Your task to perform on an android device: When is my next appointment? Image 0: 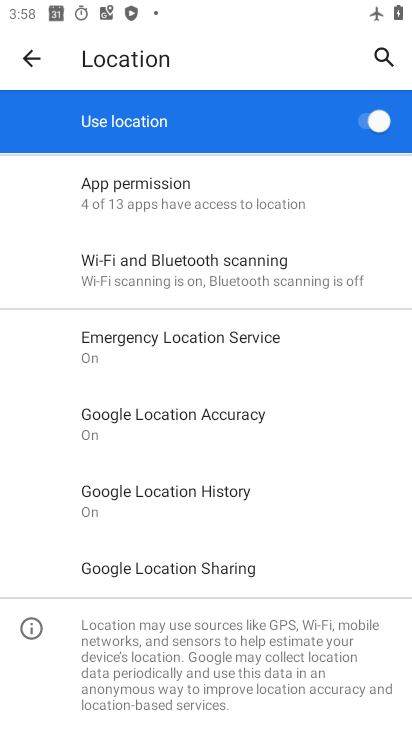
Step 0: press home button
Your task to perform on an android device: When is my next appointment? Image 1: 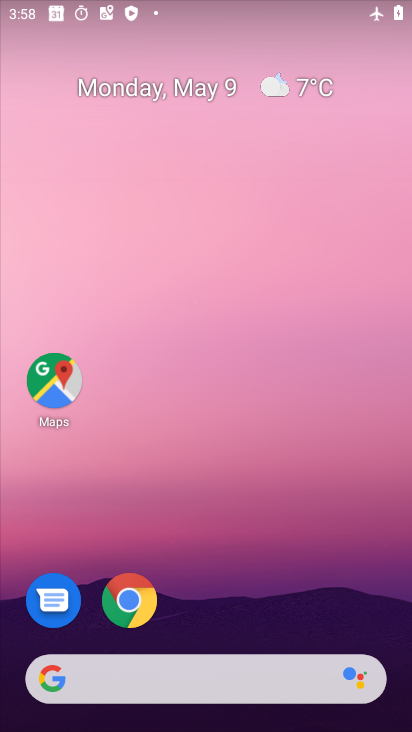
Step 1: drag from (268, 635) to (242, 176)
Your task to perform on an android device: When is my next appointment? Image 2: 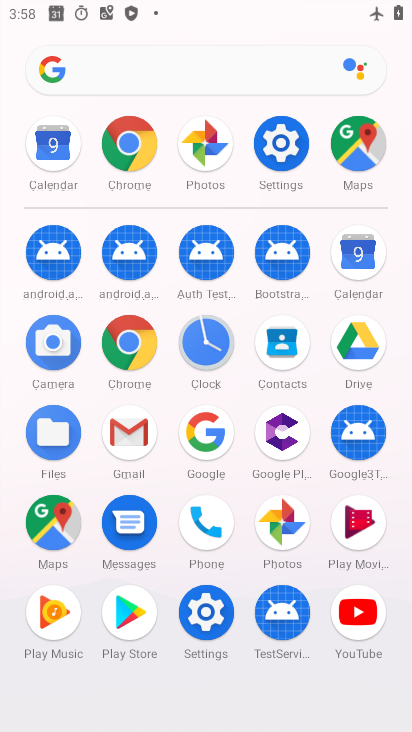
Step 2: click (356, 264)
Your task to perform on an android device: When is my next appointment? Image 3: 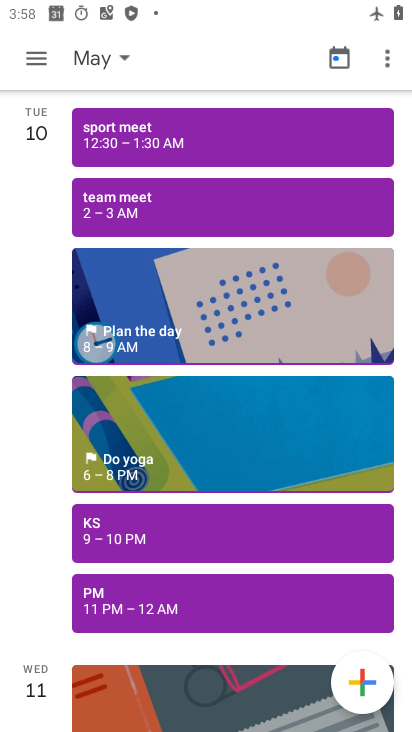
Step 3: click (112, 61)
Your task to perform on an android device: When is my next appointment? Image 4: 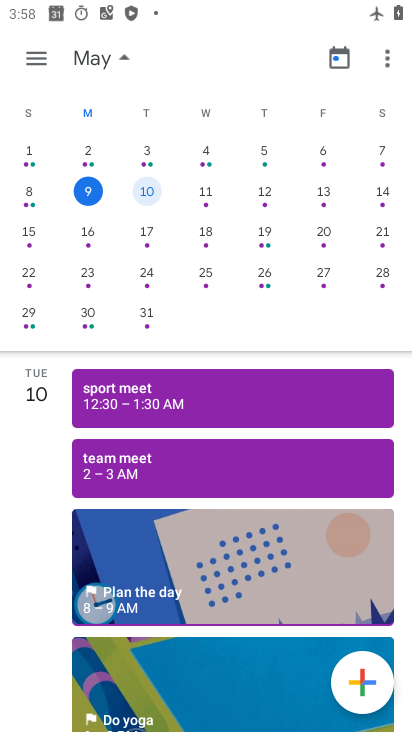
Step 4: click (78, 203)
Your task to perform on an android device: When is my next appointment? Image 5: 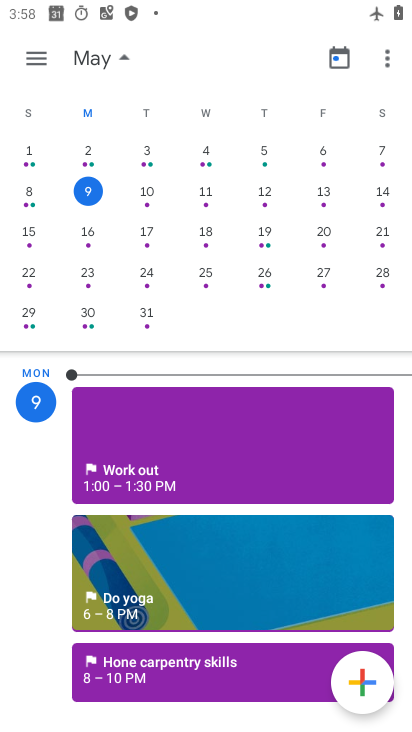
Step 5: click (88, 192)
Your task to perform on an android device: When is my next appointment? Image 6: 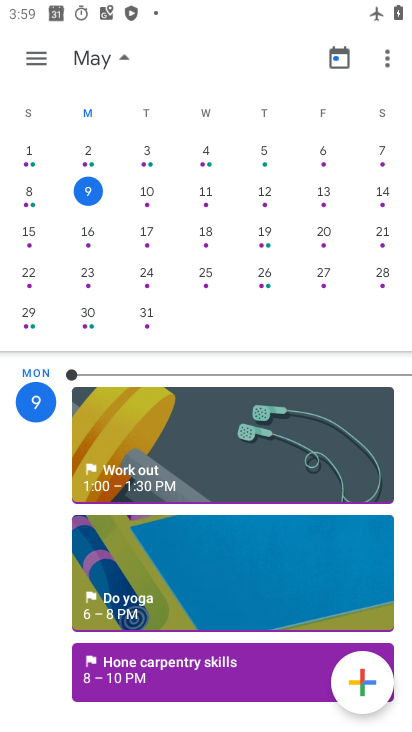
Step 6: task complete